Your task to perform on an android device: When is my next appointment? Image 0: 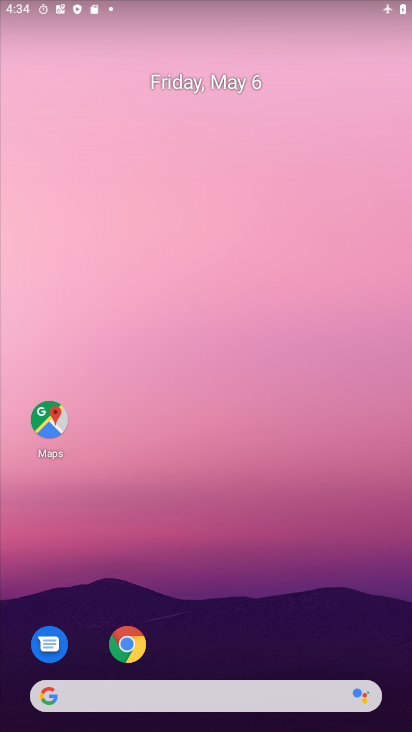
Step 0: drag from (305, 640) to (217, 195)
Your task to perform on an android device: When is my next appointment? Image 1: 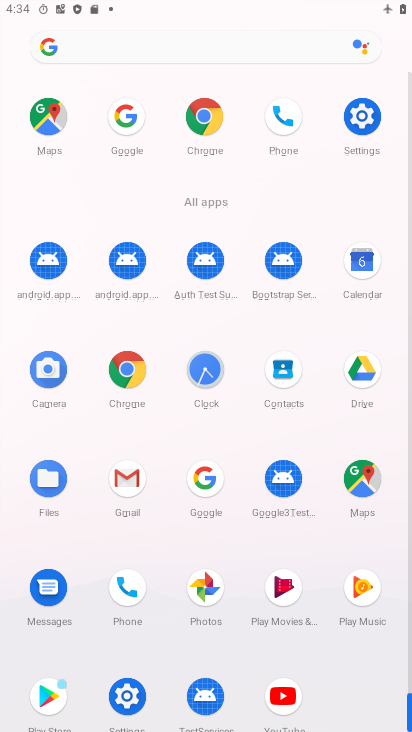
Step 1: click (361, 257)
Your task to perform on an android device: When is my next appointment? Image 2: 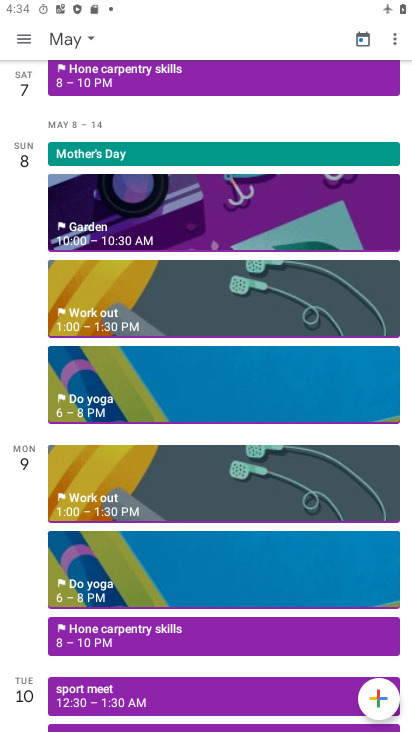
Step 2: task complete